Your task to perform on an android device: Open Chrome and go to settings Image 0: 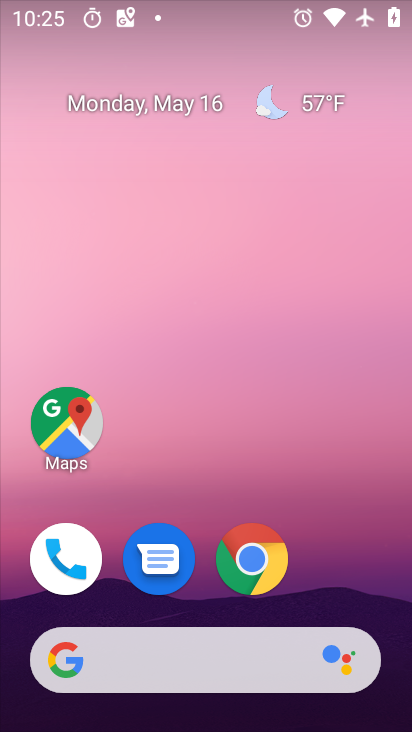
Step 0: click (234, 561)
Your task to perform on an android device: Open Chrome and go to settings Image 1: 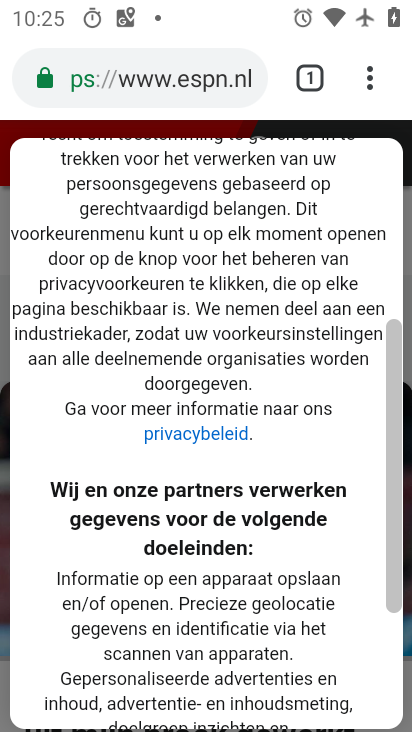
Step 1: task complete